Your task to perform on an android device: change timer sound Image 0: 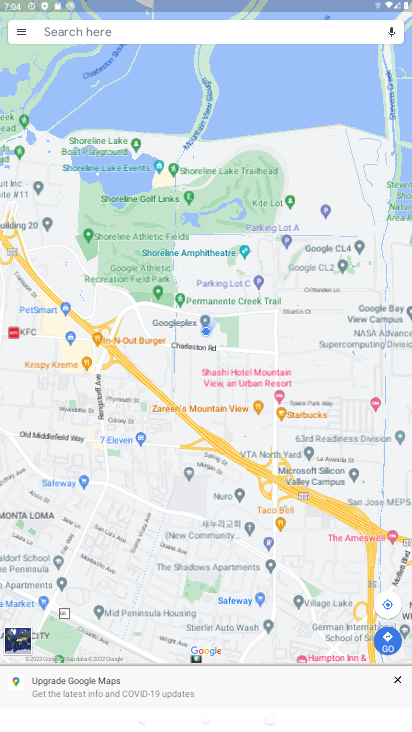
Step 0: press home button
Your task to perform on an android device: change timer sound Image 1: 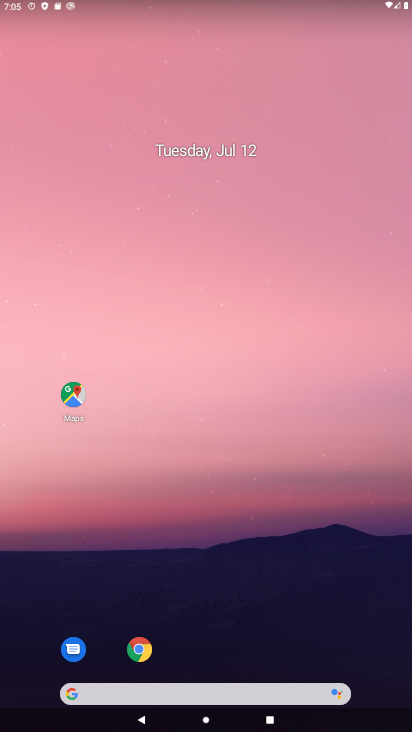
Step 1: drag from (194, 694) to (335, 0)
Your task to perform on an android device: change timer sound Image 2: 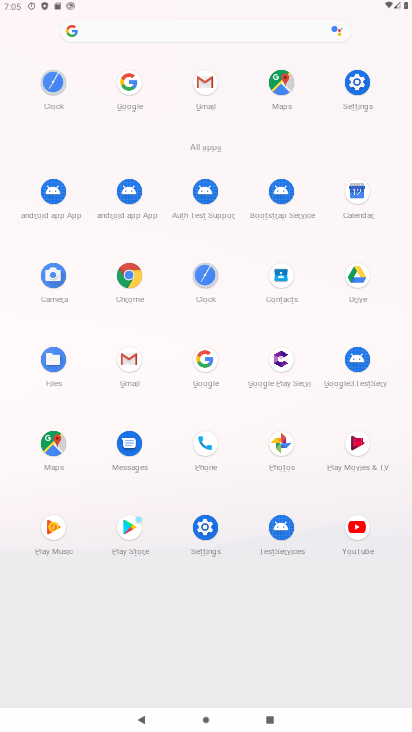
Step 2: click (205, 274)
Your task to perform on an android device: change timer sound Image 3: 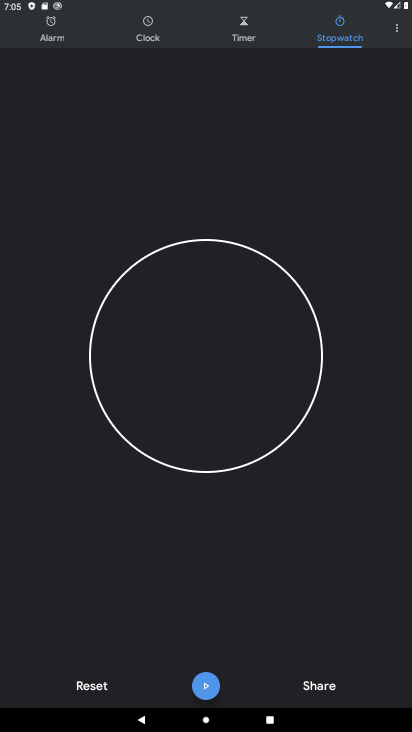
Step 3: click (398, 29)
Your task to perform on an android device: change timer sound Image 4: 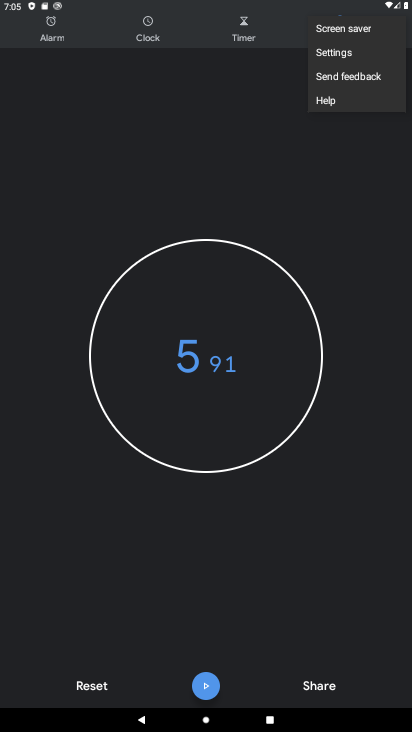
Step 4: click (349, 57)
Your task to perform on an android device: change timer sound Image 5: 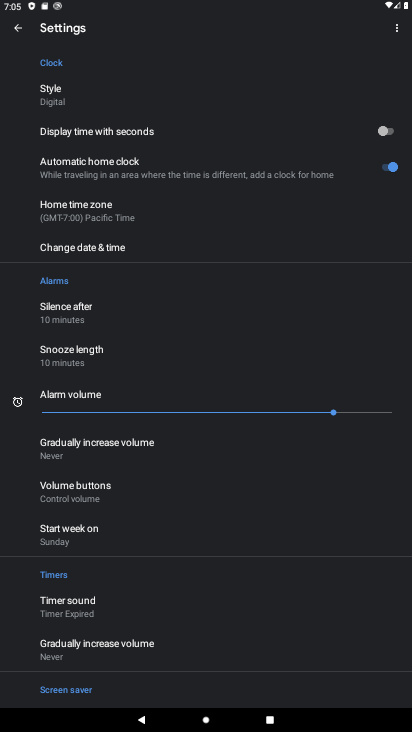
Step 5: click (75, 603)
Your task to perform on an android device: change timer sound Image 6: 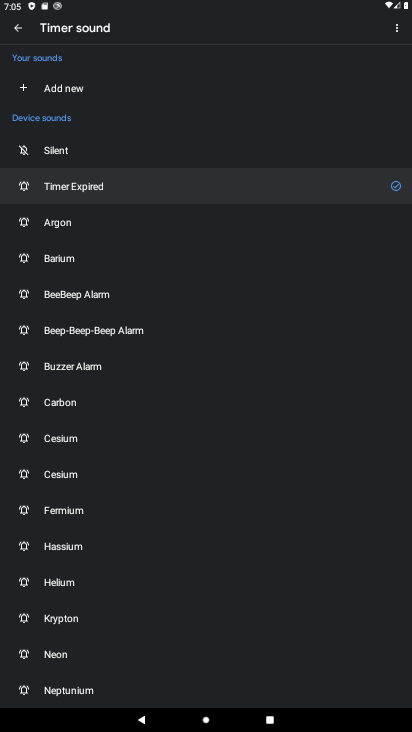
Step 6: click (45, 548)
Your task to perform on an android device: change timer sound Image 7: 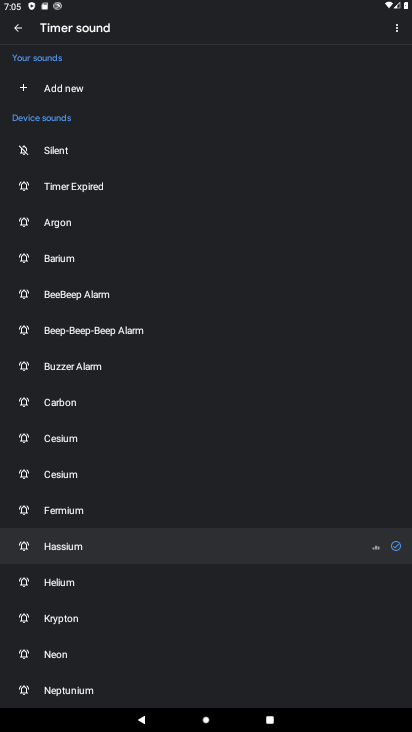
Step 7: task complete